Your task to perform on an android device: create a new album in the google photos Image 0: 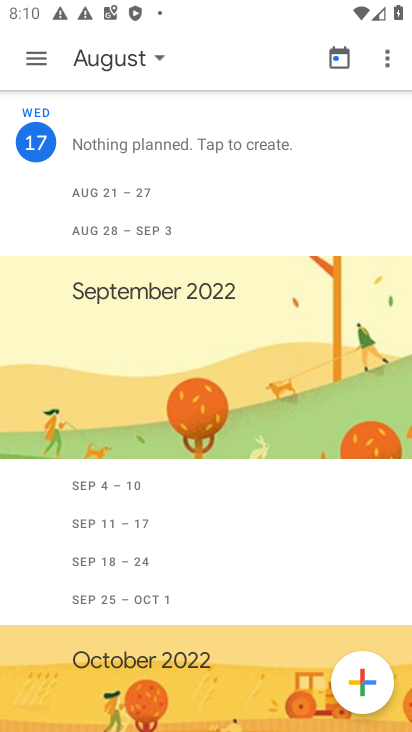
Step 0: press home button
Your task to perform on an android device: create a new album in the google photos Image 1: 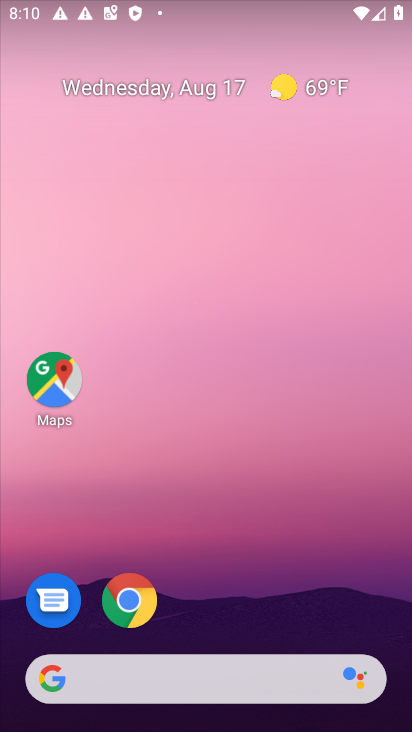
Step 1: drag from (234, 607) to (241, 14)
Your task to perform on an android device: create a new album in the google photos Image 2: 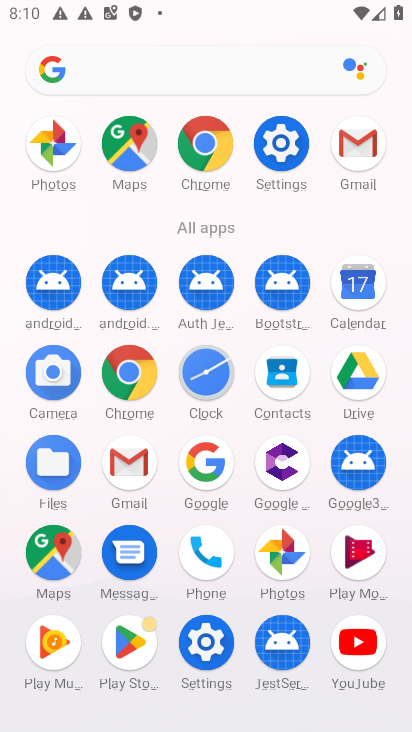
Step 2: click (284, 555)
Your task to perform on an android device: create a new album in the google photos Image 3: 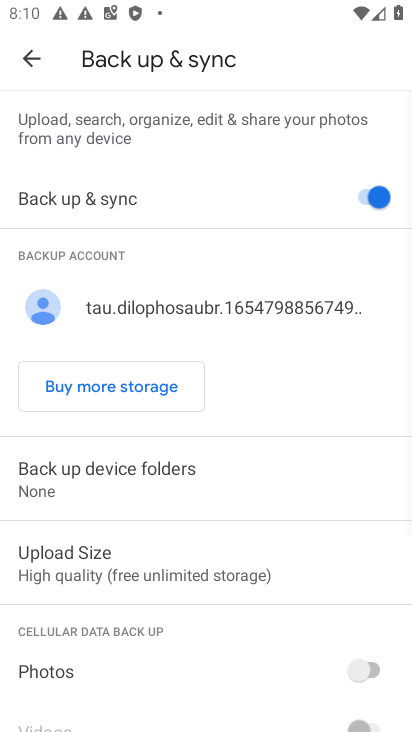
Step 3: click (33, 60)
Your task to perform on an android device: create a new album in the google photos Image 4: 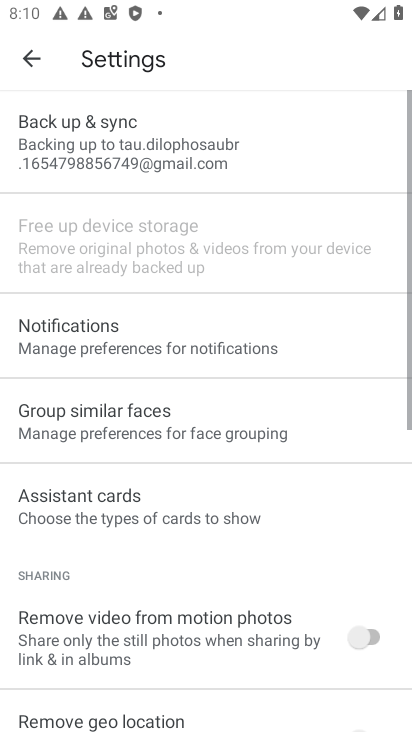
Step 4: click (35, 59)
Your task to perform on an android device: create a new album in the google photos Image 5: 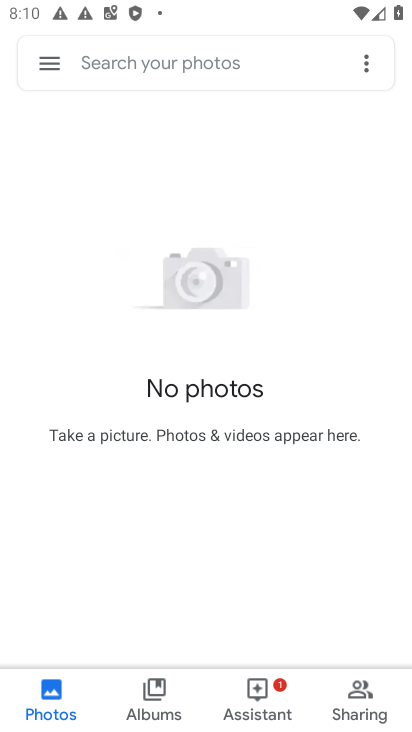
Step 5: click (150, 697)
Your task to perform on an android device: create a new album in the google photos Image 6: 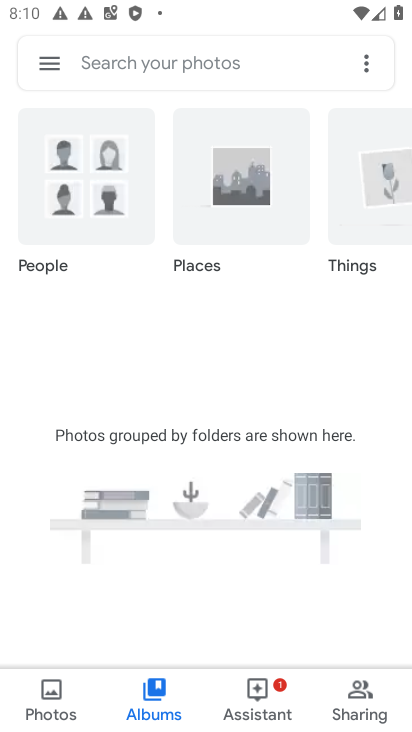
Step 6: task complete